Your task to perform on an android device: make emails show in primary in the gmail app Image 0: 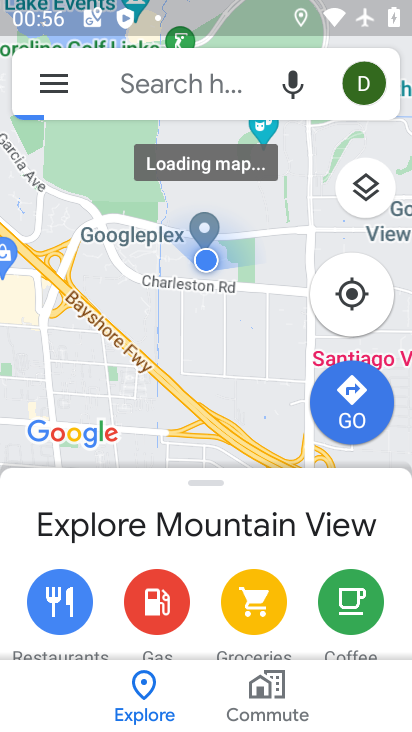
Step 0: press home button
Your task to perform on an android device: make emails show in primary in the gmail app Image 1: 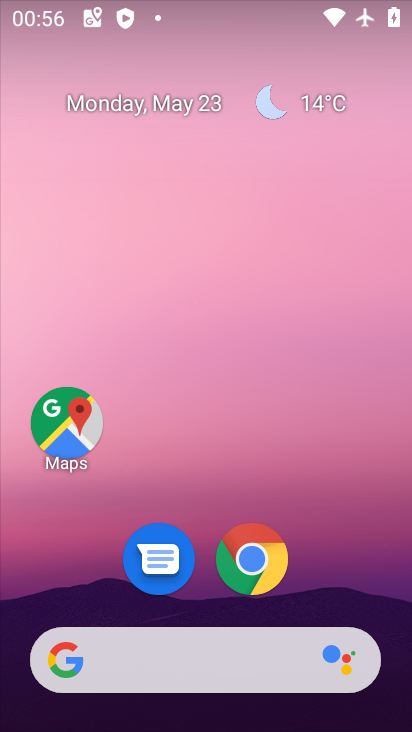
Step 1: drag from (323, 587) to (410, 20)
Your task to perform on an android device: make emails show in primary in the gmail app Image 2: 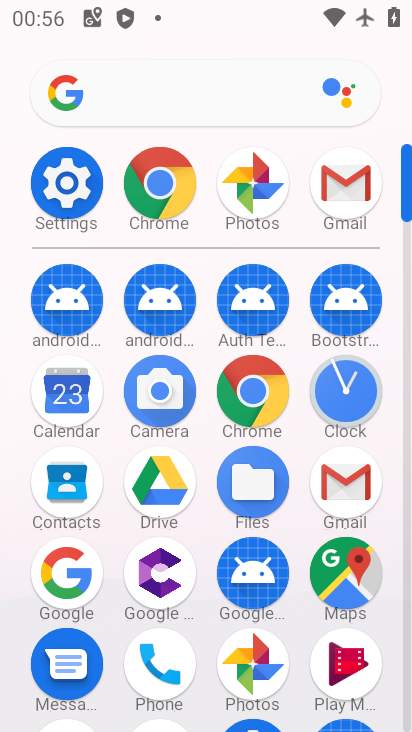
Step 2: click (350, 185)
Your task to perform on an android device: make emails show in primary in the gmail app Image 3: 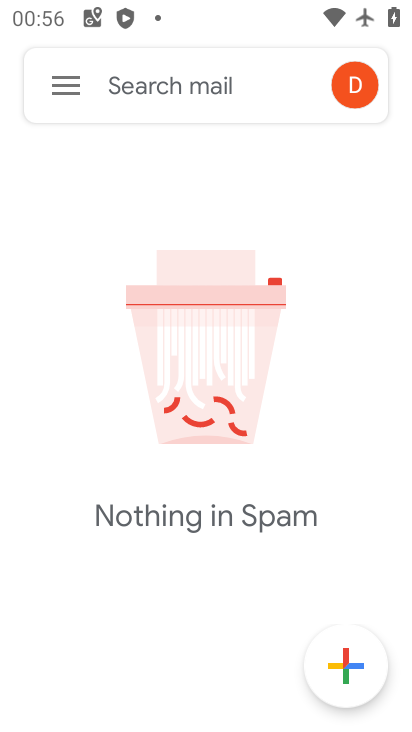
Step 3: click (56, 88)
Your task to perform on an android device: make emails show in primary in the gmail app Image 4: 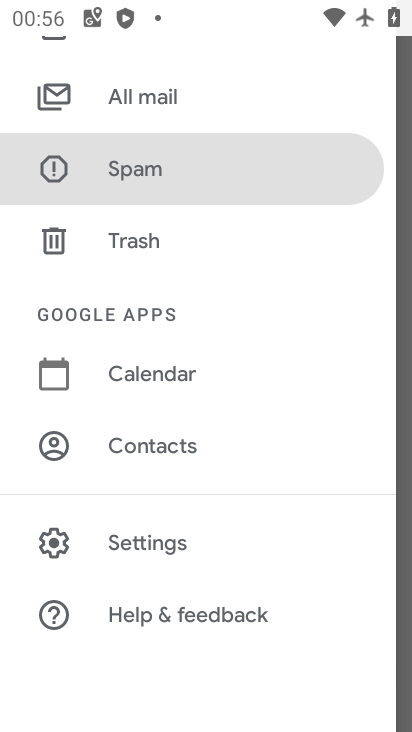
Step 4: click (138, 537)
Your task to perform on an android device: make emails show in primary in the gmail app Image 5: 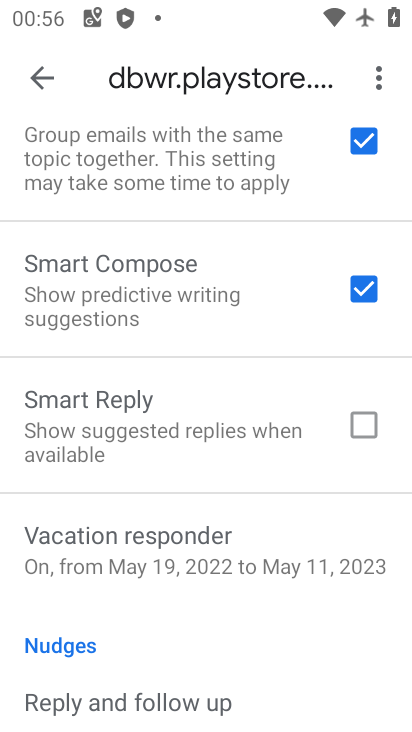
Step 5: task complete